Your task to perform on an android device: open app "Viber Messenger" (install if not already installed) and go to login screen Image 0: 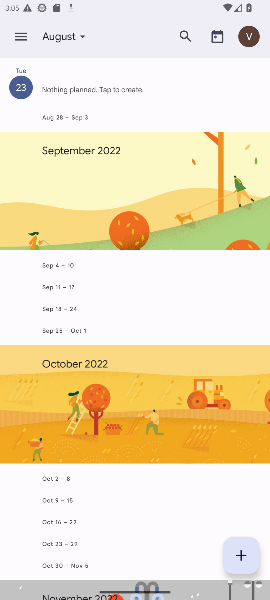
Step 0: press home button
Your task to perform on an android device: open app "Viber Messenger" (install if not already installed) and go to login screen Image 1: 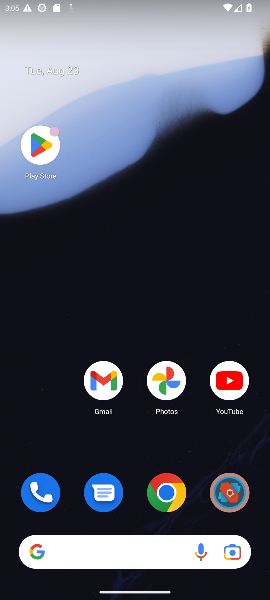
Step 1: click (42, 144)
Your task to perform on an android device: open app "Viber Messenger" (install if not already installed) and go to login screen Image 2: 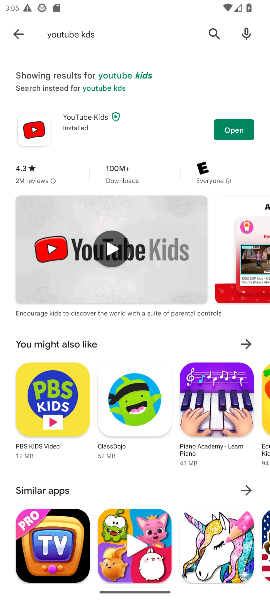
Step 2: click (215, 35)
Your task to perform on an android device: open app "Viber Messenger" (install if not already installed) and go to login screen Image 3: 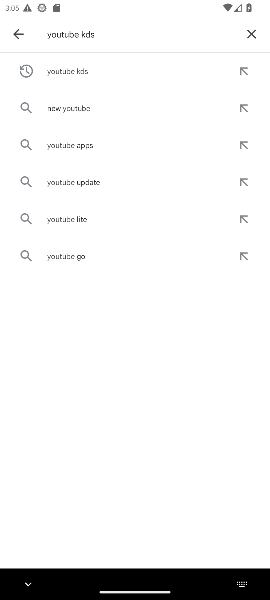
Step 3: click (258, 34)
Your task to perform on an android device: open app "Viber Messenger" (install if not already installed) and go to login screen Image 4: 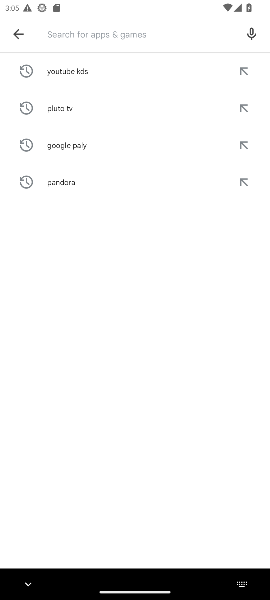
Step 4: type "viber"
Your task to perform on an android device: open app "Viber Messenger" (install if not already installed) and go to login screen Image 5: 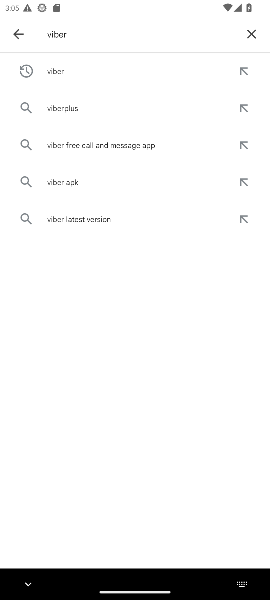
Step 5: click (102, 75)
Your task to perform on an android device: open app "Viber Messenger" (install if not already installed) and go to login screen Image 6: 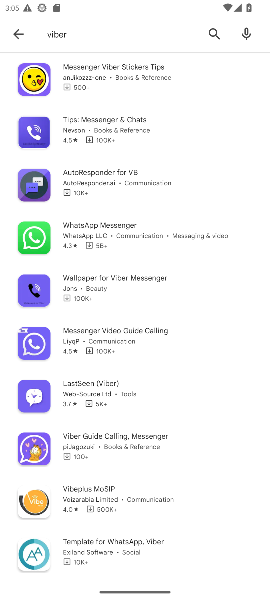
Step 6: task complete